Your task to perform on an android device: toggle pop-ups in chrome Image 0: 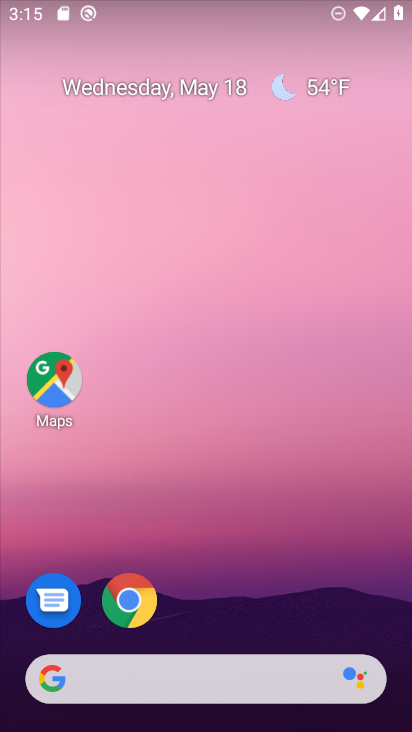
Step 0: click (156, 671)
Your task to perform on an android device: toggle pop-ups in chrome Image 1: 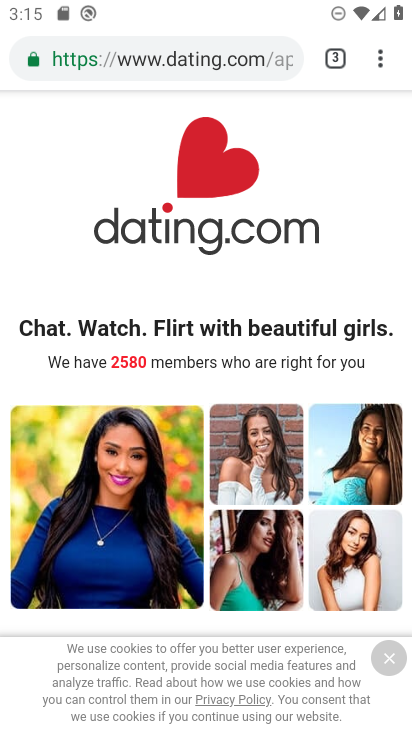
Step 1: click (384, 59)
Your task to perform on an android device: toggle pop-ups in chrome Image 2: 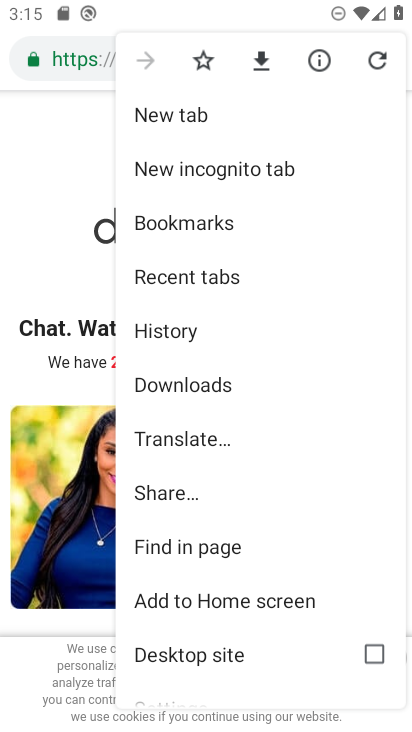
Step 2: drag from (181, 562) to (243, 199)
Your task to perform on an android device: toggle pop-ups in chrome Image 3: 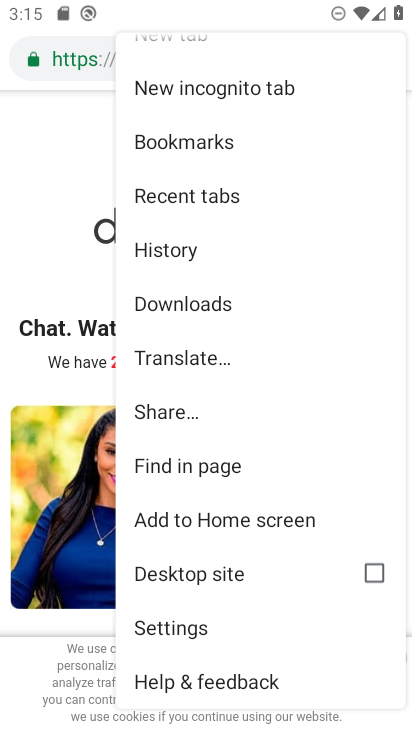
Step 3: click (183, 633)
Your task to perform on an android device: toggle pop-ups in chrome Image 4: 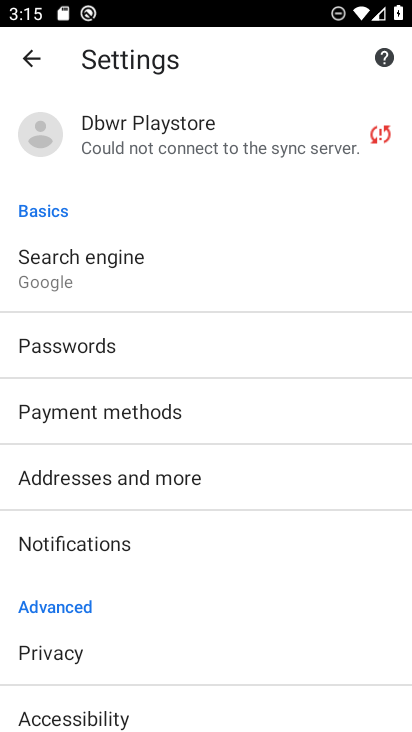
Step 4: drag from (154, 566) to (197, 343)
Your task to perform on an android device: toggle pop-ups in chrome Image 5: 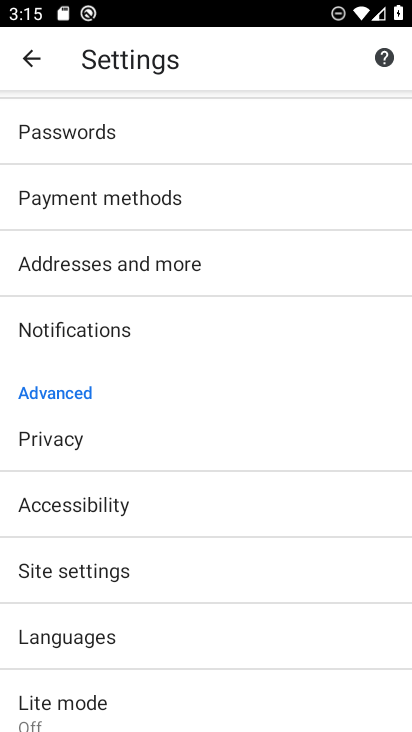
Step 5: click (88, 579)
Your task to perform on an android device: toggle pop-ups in chrome Image 6: 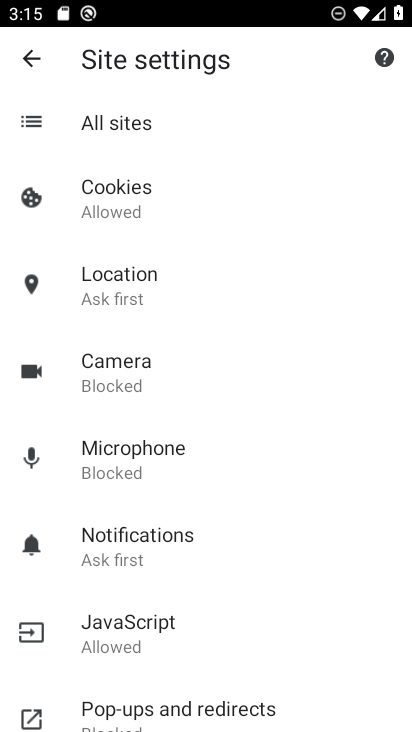
Step 6: drag from (116, 678) to (162, 410)
Your task to perform on an android device: toggle pop-ups in chrome Image 7: 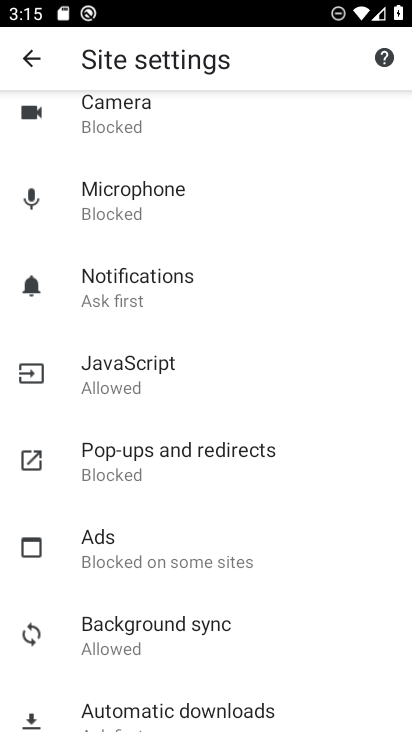
Step 7: click (140, 458)
Your task to perform on an android device: toggle pop-ups in chrome Image 8: 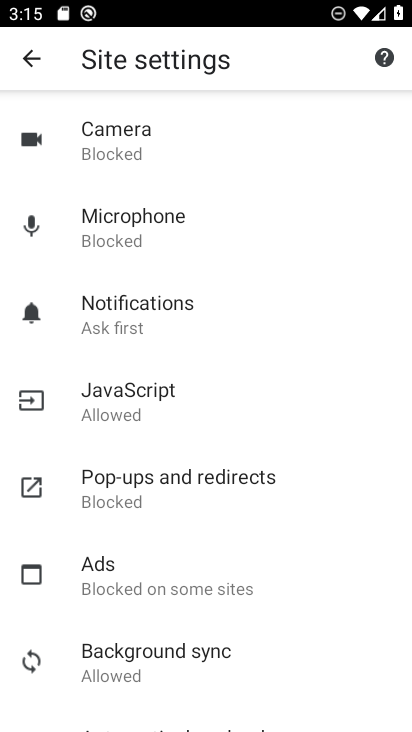
Step 8: click (128, 498)
Your task to perform on an android device: toggle pop-ups in chrome Image 9: 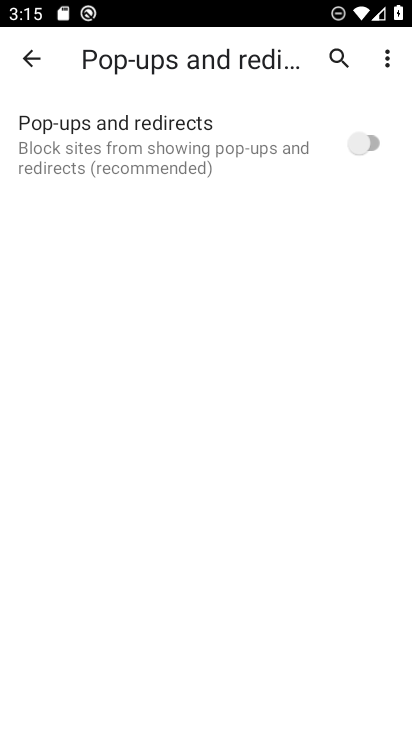
Step 9: click (382, 144)
Your task to perform on an android device: toggle pop-ups in chrome Image 10: 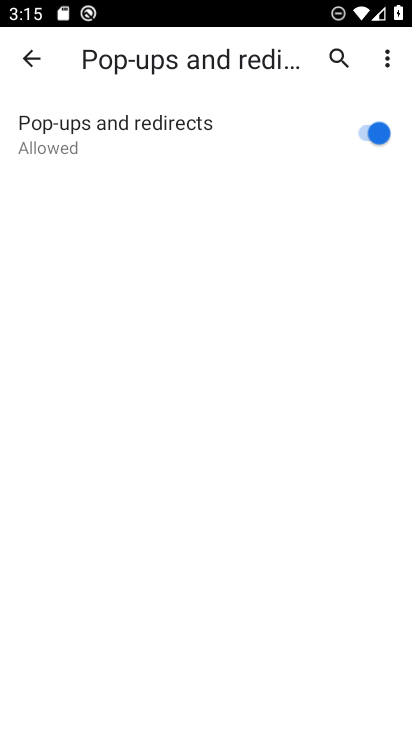
Step 10: task complete